Your task to perform on an android device: open wifi settings Image 0: 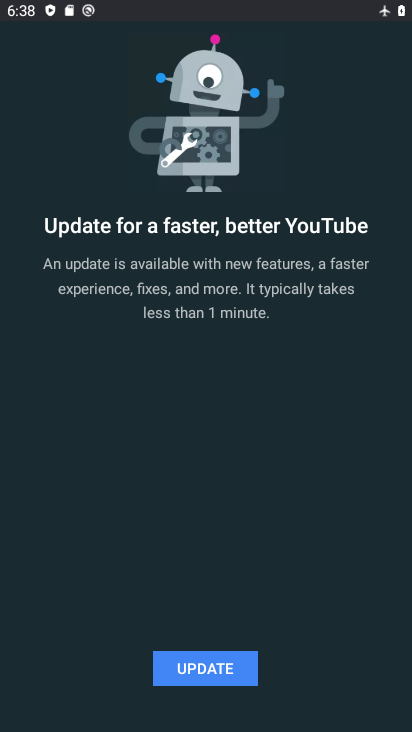
Step 0: press back button
Your task to perform on an android device: open wifi settings Image 1: 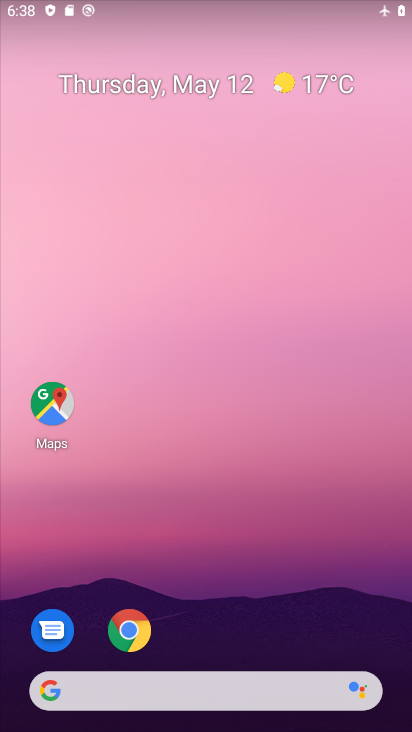
Step 1: drag from (340, 625) to (178, 168)
Your task to perform on an android device: open wifi settings Image 2: 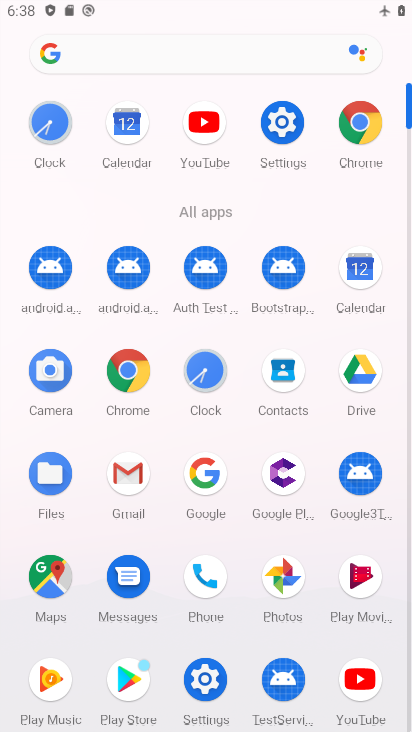
Step 2: click (288, 113)
Your task to perform on an android device: open wifi settings Image 3: 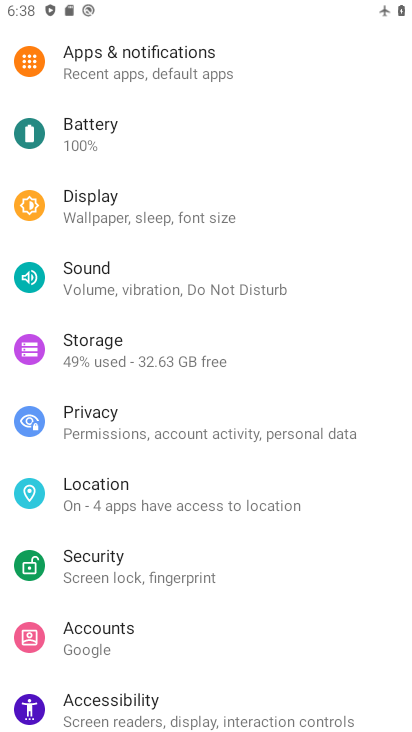
Step 3: drag from (288, 113) to (174, 724)
Your task to perform on an android device: open wifi settings Image 4: 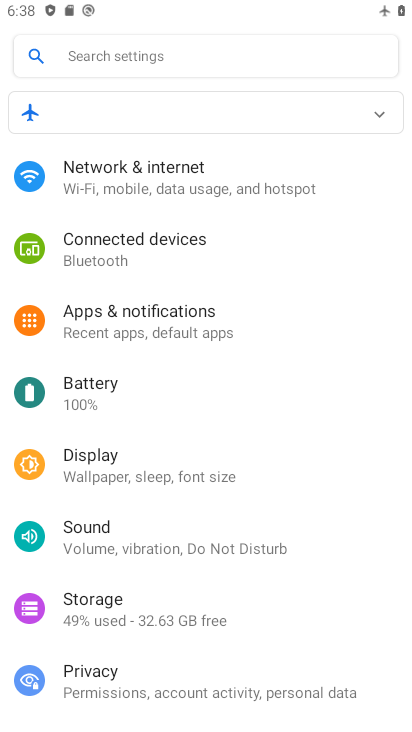
Step 4: click (154, 199)
Your task to perform on an android device: open wifi settings Image 5: 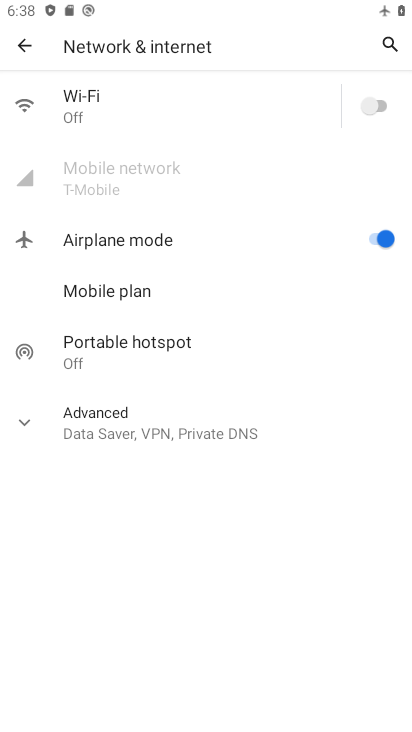
Step 5: click (268, 111)
Your task to perform on an android device: open wifi settings Image 6: 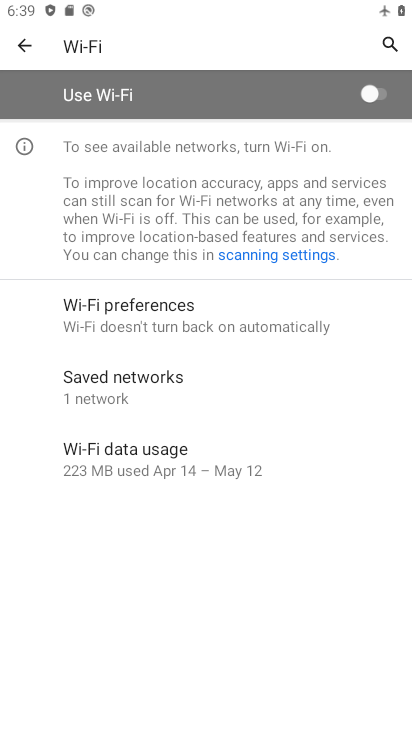
Step 6: task complete